Your task to perform on an android device: Open calendar and show me the second week of next month Image 0: 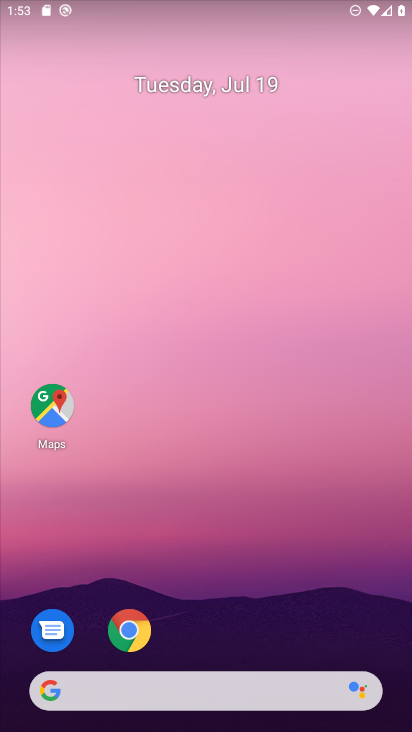
Step 0: press home button
Your task to perform on an android device: Open calendar and show me the second week of next month Image 1: 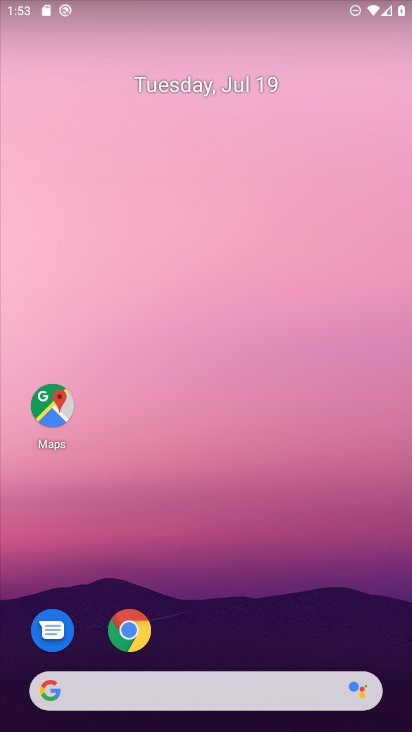
Step 1: drag from (159, 688) to (194, 235)
Your task to perform on an android device: Open calendar and show me the second week of next month Image 2: 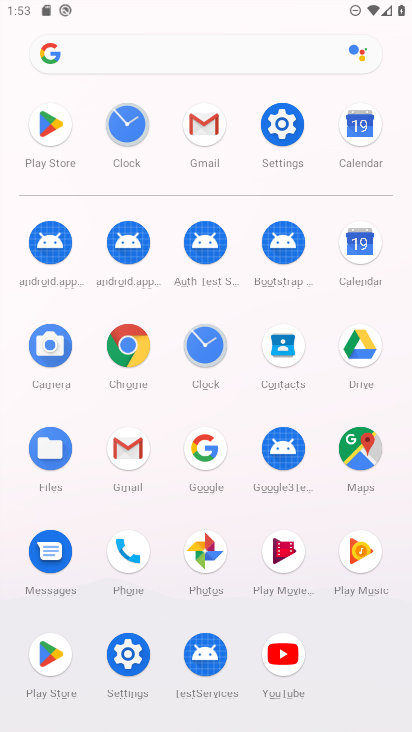
Step 2: click (364, 251)
Your task to perform on an android device: Open calendar and show me the second week of next month Image 3: 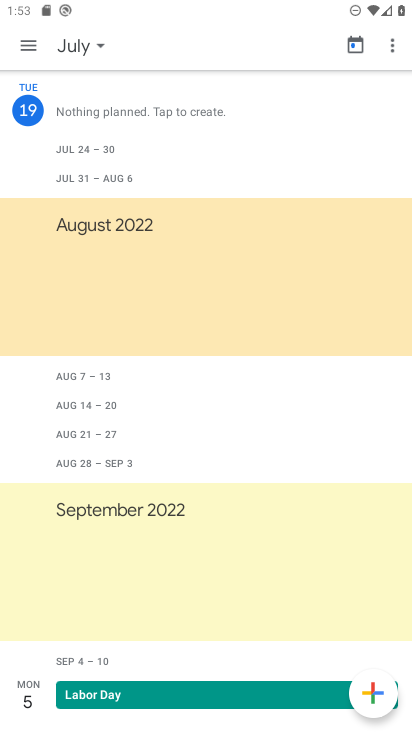
Step 3: click (75, 44)
Your task to perform on an android device: Open calendar and show me the second week of next month Image 4: 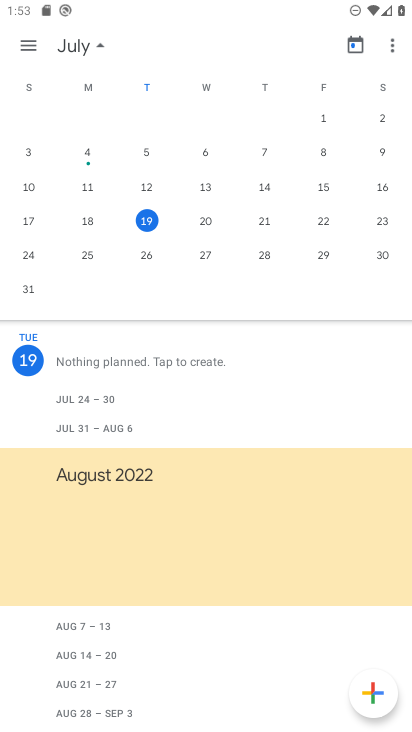
Step 4: drag from (383, 170) to (17, 186)
Your task to perform on an android device: Open calendar and show me the second week of next month Image 5: 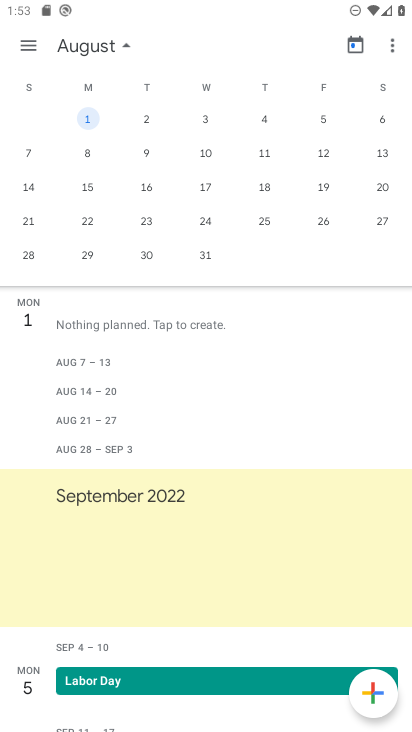
Step 5: click (36, 148)
Your task to perform on an android device: Open calendar and show me the second week of next month Image 6: 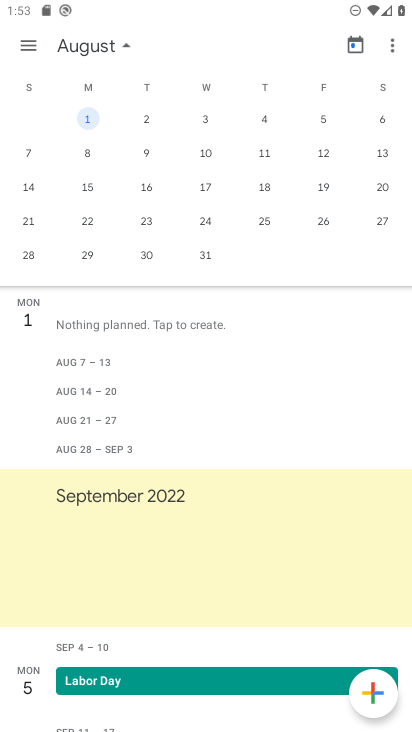
Step 6: click (21, 155)
Your task to perform on an android device: Open calendar and show me the second week of next month Image 7: 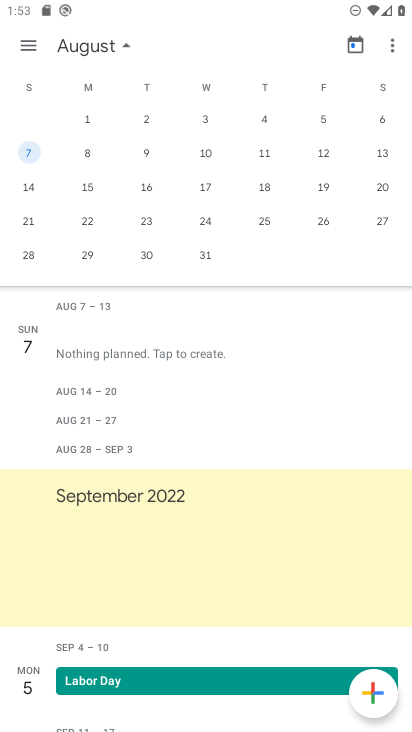
Step 7: click (27, 38)
Your task to perform on an android device: Open calendar and show me the second week of next month Image 8: 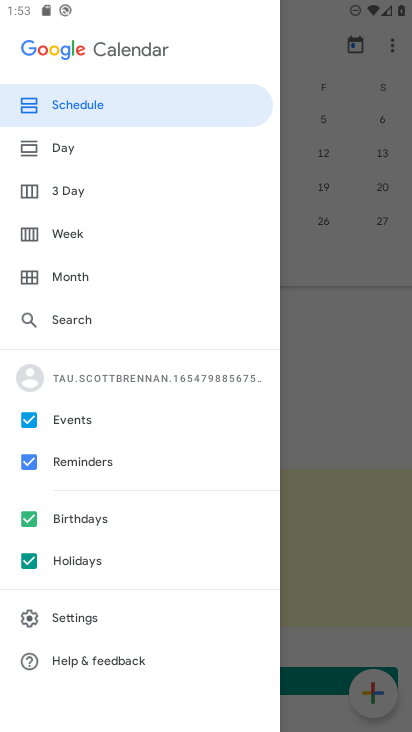
Step 8: click (70, 234)
Your task to perform on an android device: Open calendar and show me the second week of next month Image 9: 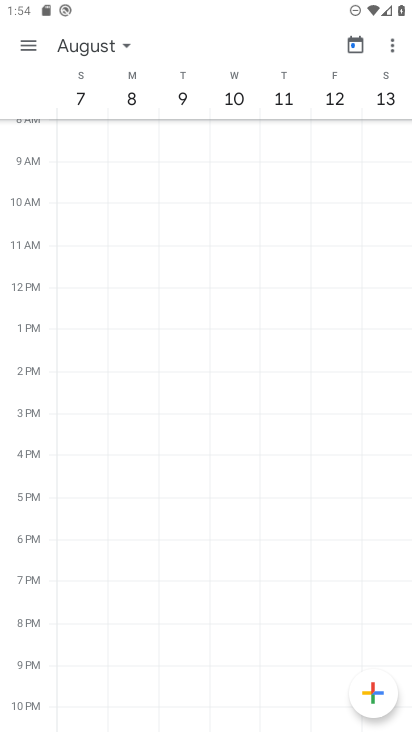
Step 9: task complete